Your task to perform on an android device: Turn on the flashlight Image 0: 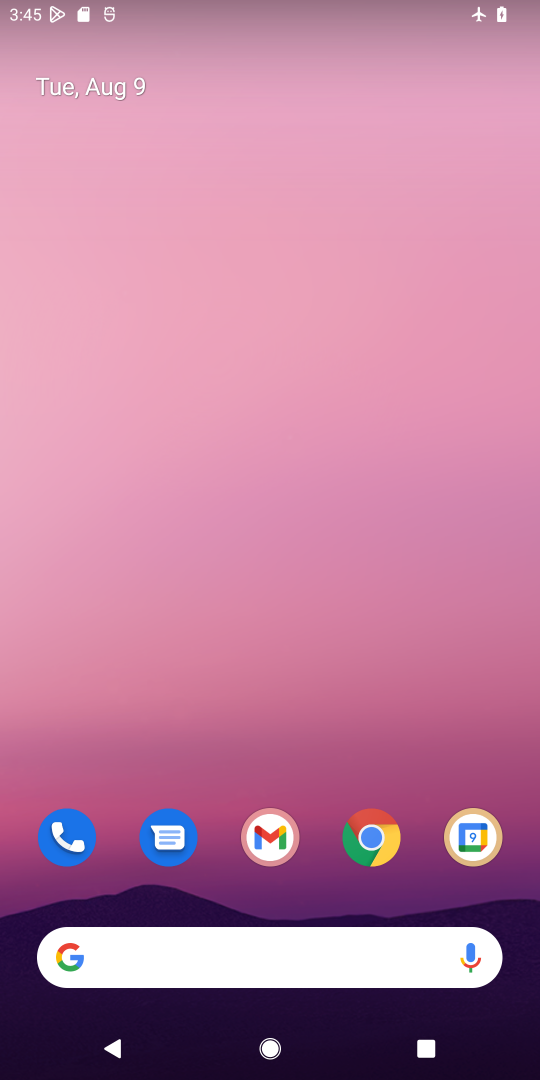
Step 0: drag from (354, 914) to (324, 315)
Your task to perform on an android device: Turn on the flashlight Image 1: 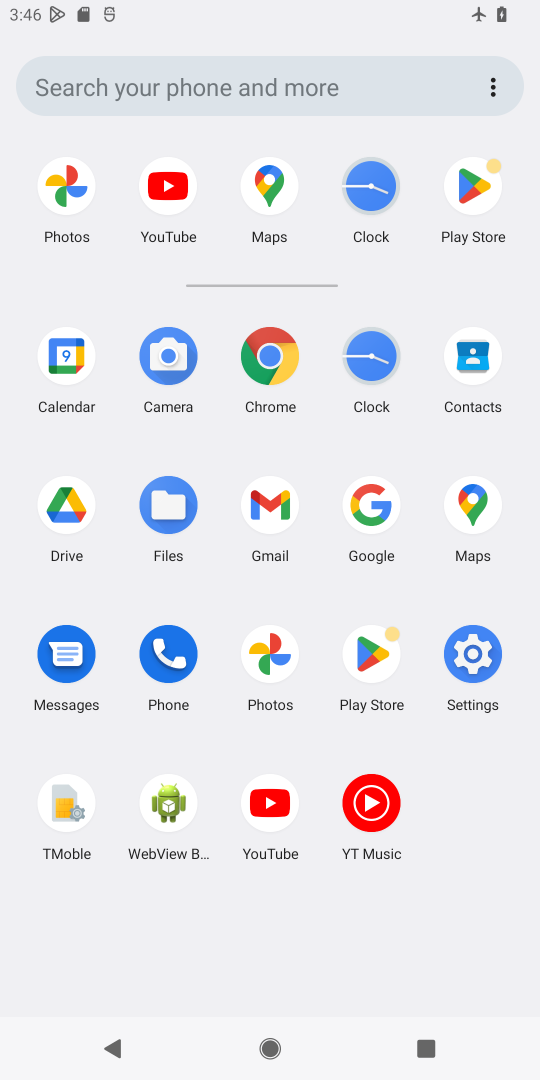
Step 1: click (468, 656)
Your task to perform on an android device: Turn on the flashlight Image 2: 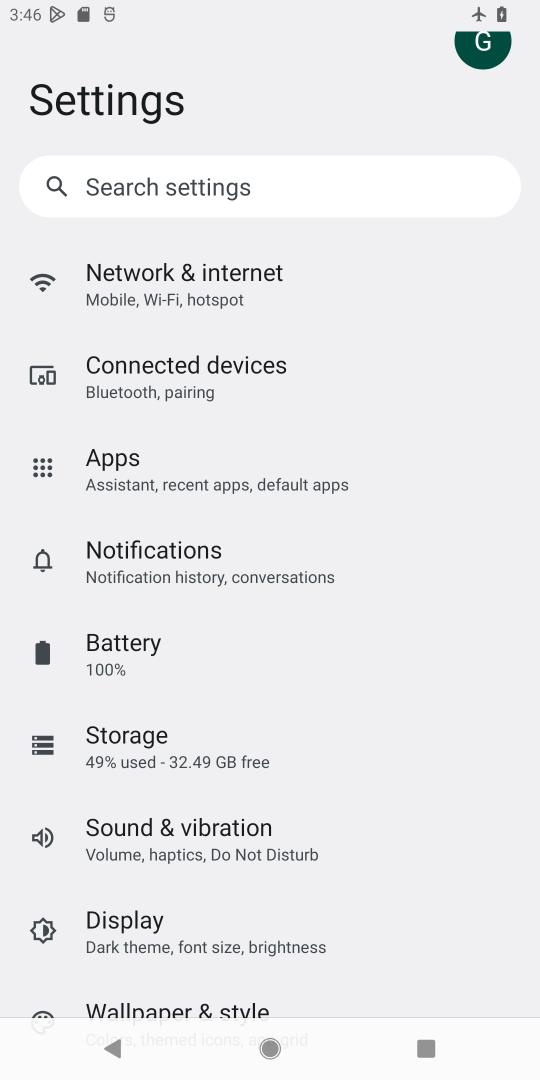
Step 2: task complete